Your task to perform on an android device: Open calendar and show me the fourth week of next month Image 0: 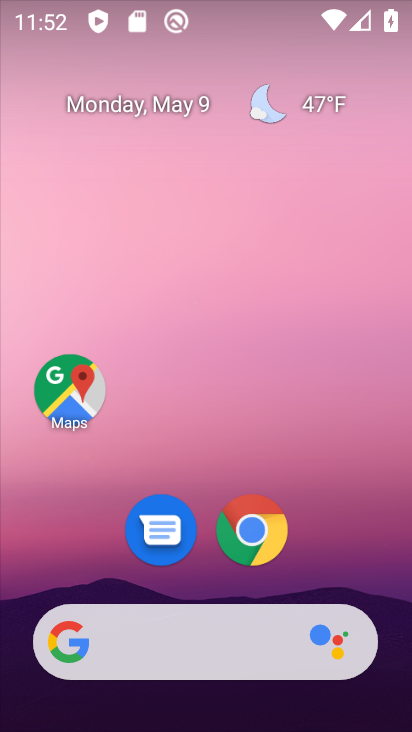
Step 0: drag from (379, 522) to (347, 162)
Your task to perform on an android device: Open calendar and show me the fourth week of next month Image 1: 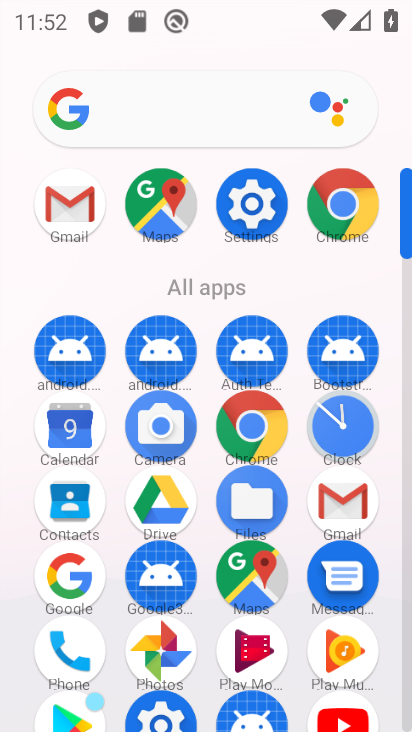
Step 1: click (53, 438)
Your task to perform on an android device: Open calendar and show me the fourth week of next month Image 2: 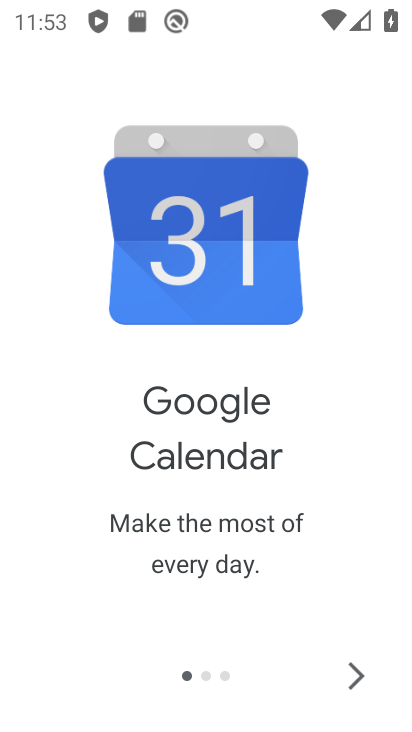
Step 2: click (352, 673)
Your task to perform on an android device: Open calendar and show me the fourth week of next month Image 3: 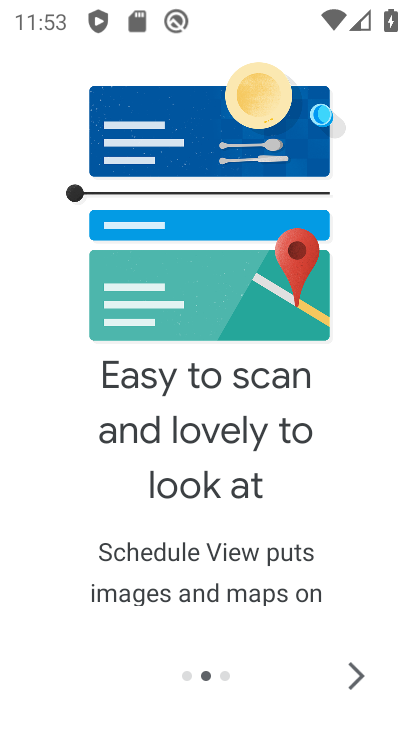
Step 3: click (353, 672)
Your task to perform on an android device: Open calendar and show me the fourth week of next month Image 4: 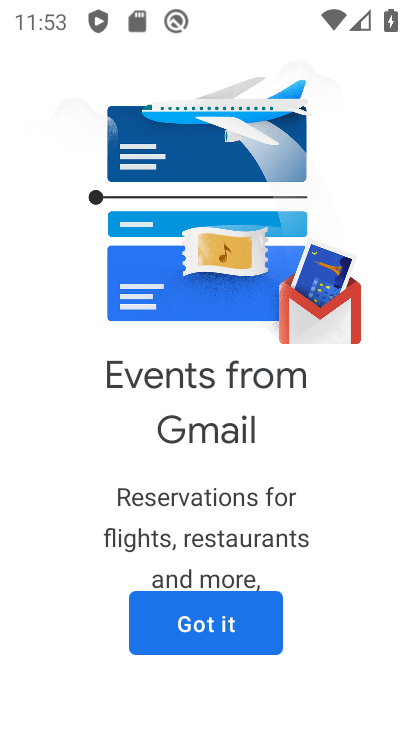
Step 4: click (221, 589)
Your task to perform on an android device: Open calendar and show me the fourth week of next month Image 5: 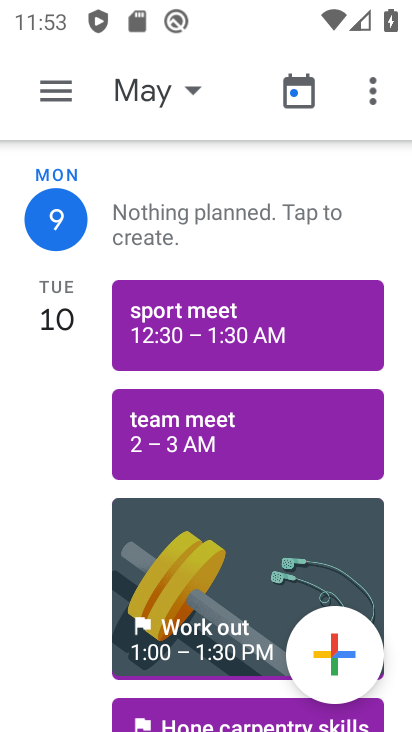
Step 5: click (165, 87)
Your task to perform on an android device: Open calendar and show me the fourth week of next month Image 6: 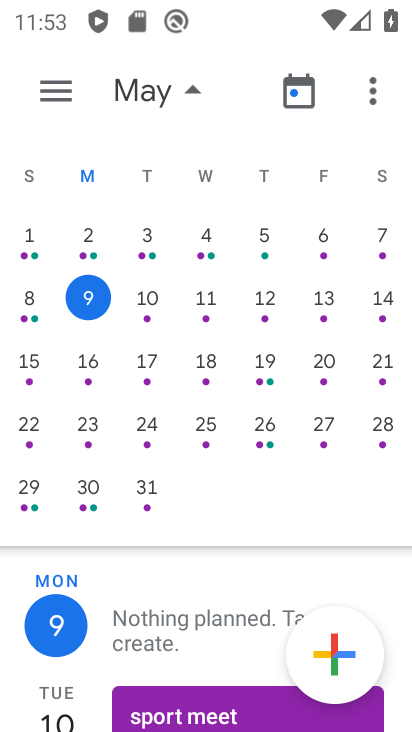
Step 6: drag from (343, 330) to (5, 364)
Your task to perform on an android device: Open calendar and show me the fourth week of next month Image 7: 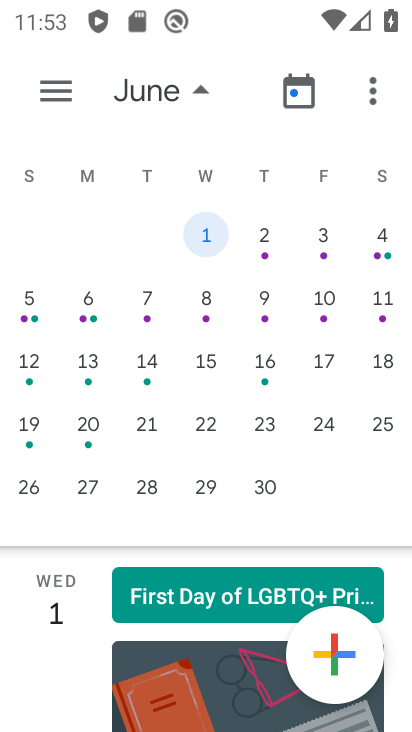
Step 7: click (34, 417)
Your task to perform on an android device: Open calendar and show me the fourth week of next month Image 8: 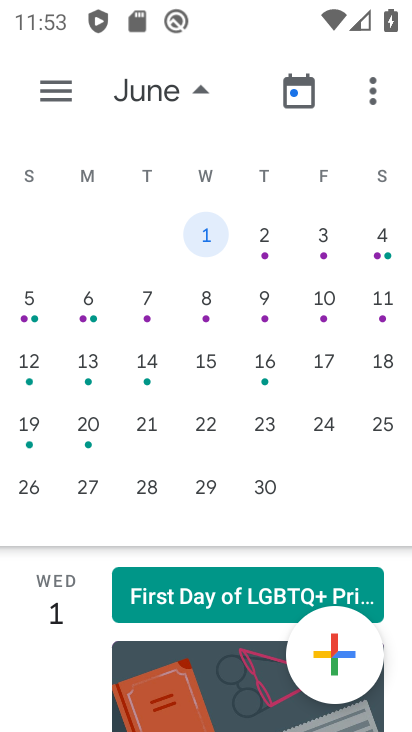
Step 8: task complete